Your task to perform on an android device: Open Google Chrome and click the shortcut for Amazon.com Image 0: 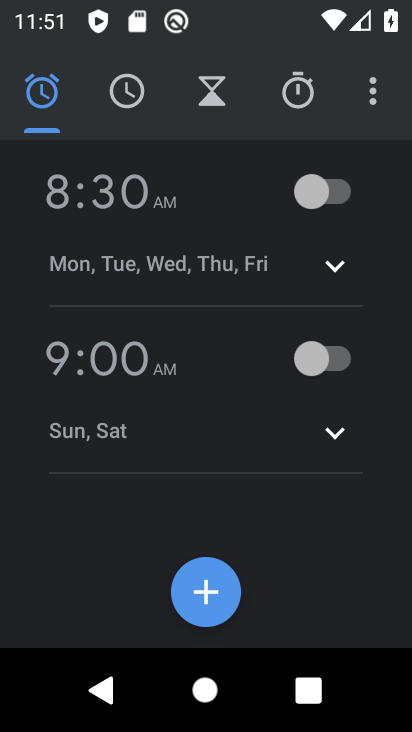
Step 0: press home button
Your task to perform on an android device: Open Google Chrome and click the shortcut for Amazon.com Image 1: 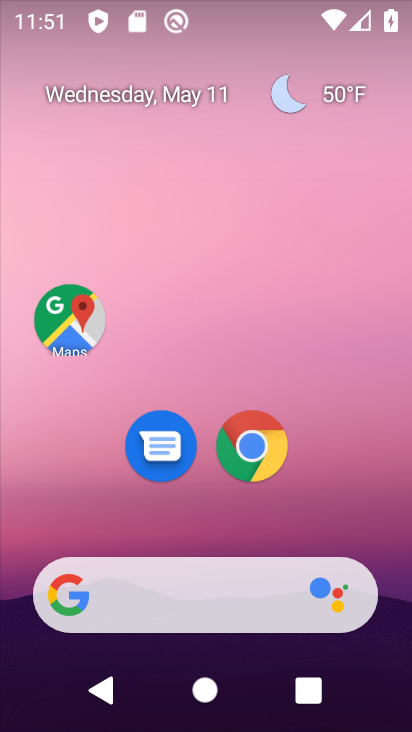
Step 1: click (269, 475)
Your task to perform on an android device: Open Google Chrome and click the shortcut for Amazon.com Image 2: 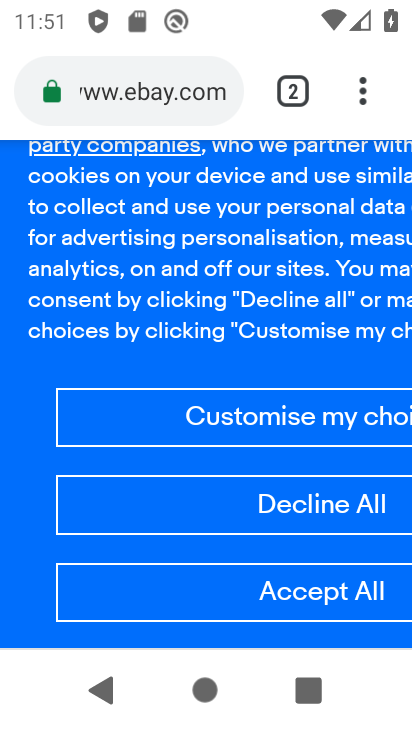
Step 2: click (286, 90)
Your task to perform on an android device: Open Google Chrome and click the shortcut for Amazon.com Image 3: 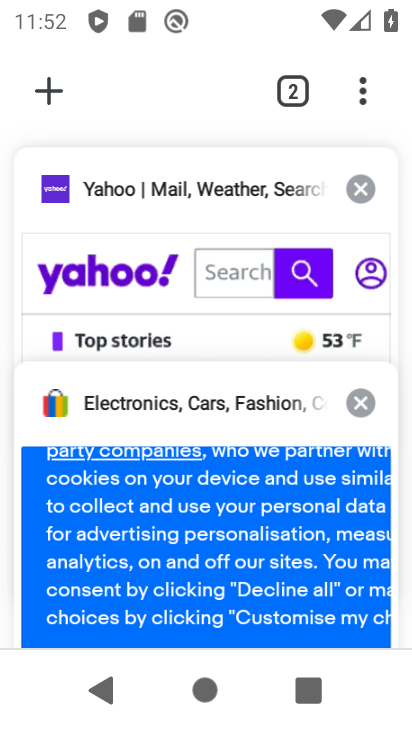
Step 3: click (43, 91)
Your task to perform on an android device: Open Google Chrome and click the shortcut for Amazon.com Image 4: 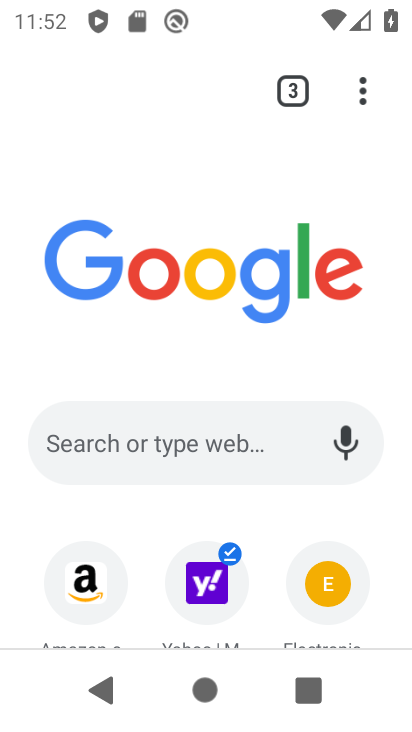
Step 4: click (80, 593)
Your task to perform on an android device: Open Google Chrome and click the shortcut for Amazon.com Image 5: 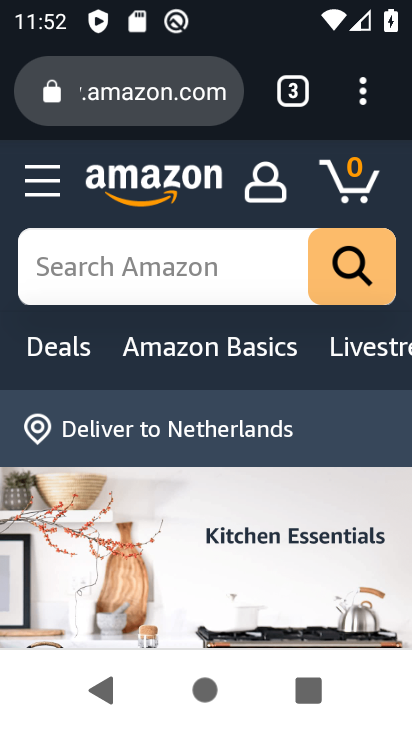
Step 5: task complete